Your task to perform on an android device: Go to calendar. Show me events next week Image 0: 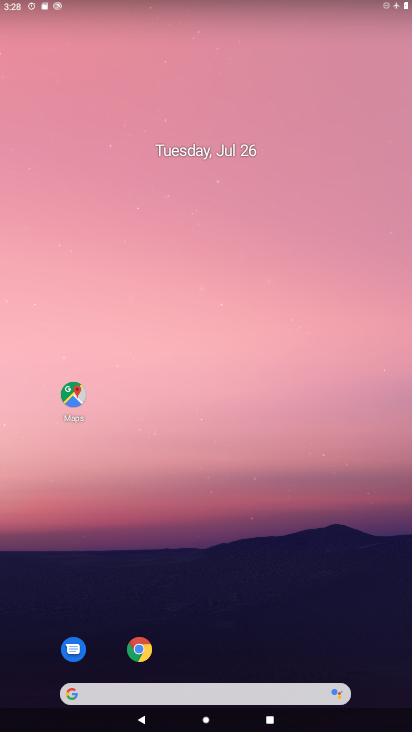
Step 0: drag from (327, 639) to (227, 63)
Your task to perform on an android device: Go to calendar. Show me events next week Image 1: 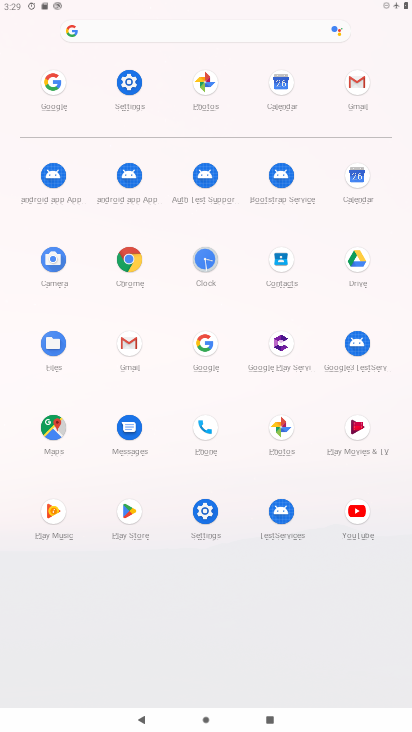
Step 1: click (349, 165)
Your task to perform on an android device: Go to calendar. Show me events next week Image 2: 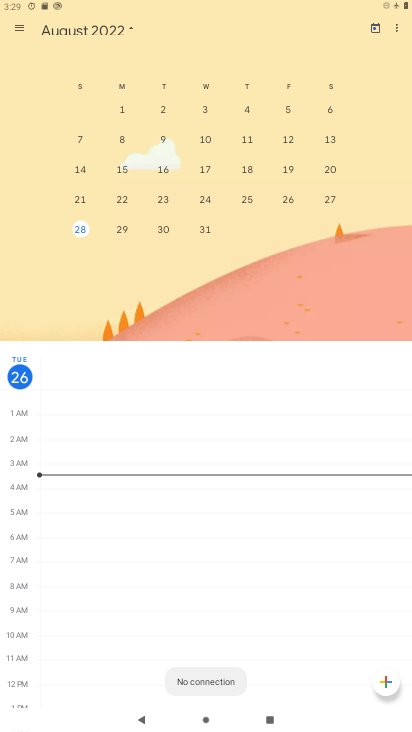
Step 2: task complete